Your task to perform on an android device: allow cookies in the chrome app Image 0: 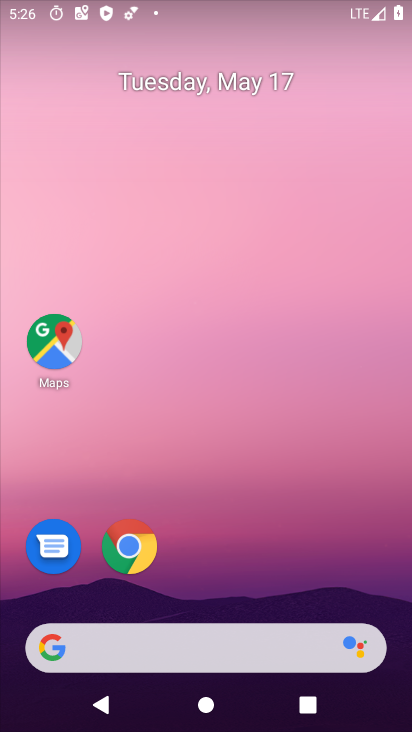
Step 0: drag from (257, 595) to (192, 147)
Your task to perform on an android device: allow cookies in the chrome app Image 1: 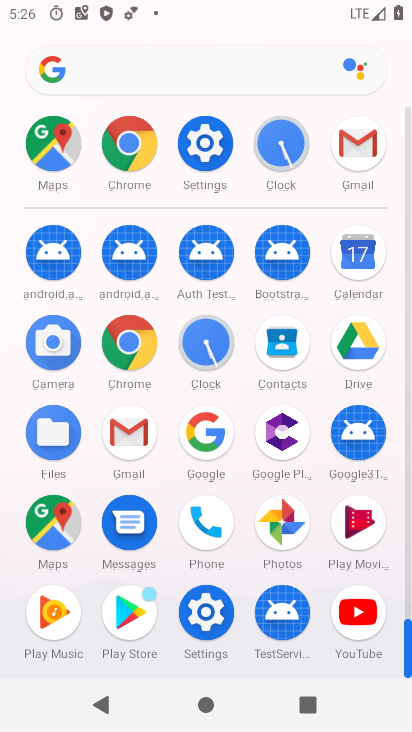
Step 1: click (125, 186)
Your task to perform on an android device: allow cookies in the chrome app Image 2: 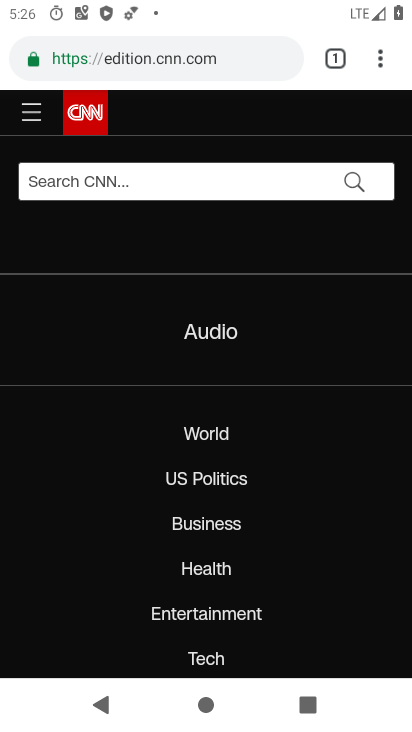
Step 2: click (381, 63)
Your task to perform on an android device: allow cookies in the chrome app Image 3: 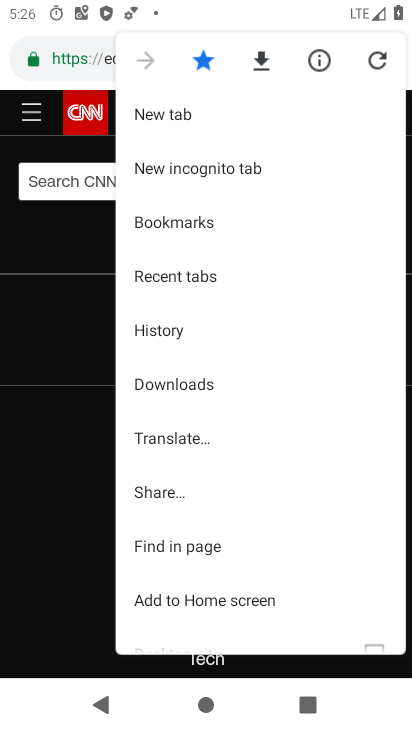
Step 3: drag from (192, 575) to (221, 250)
Your task to perform on an android device: allow cookies in the chrome app Image 4: 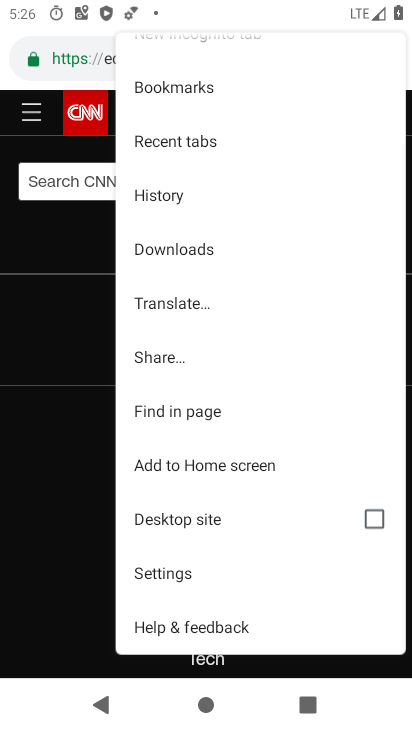
Step 4: click (159, 587)
Your task to perform on an android device: allow cookies in the chrome app Image 5: 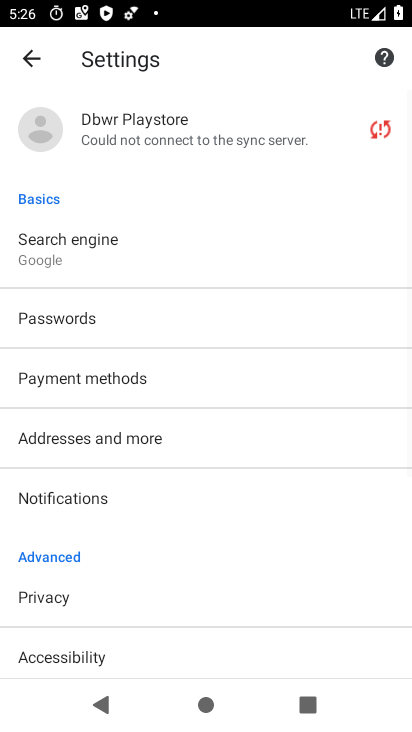
Step 5: drag from (123, 614) to (99, 249)
Your task to perform on an android device: allow cookies in the chrome app Image 6: 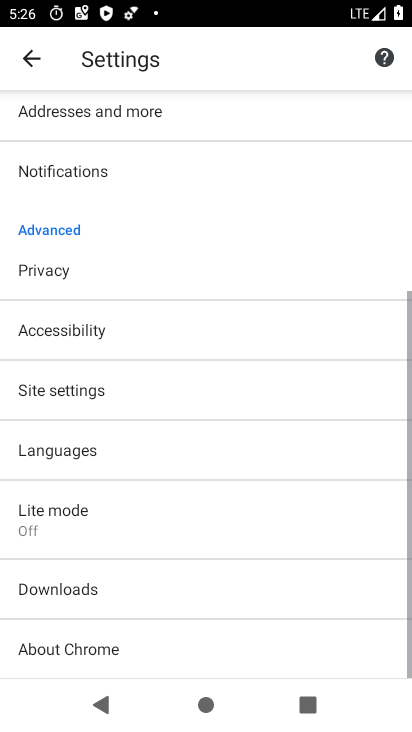
Step 6: drag from (79, 617) to (134, 325)
Your task to perform on an android device: allow cookies in the chrome app Image 7: 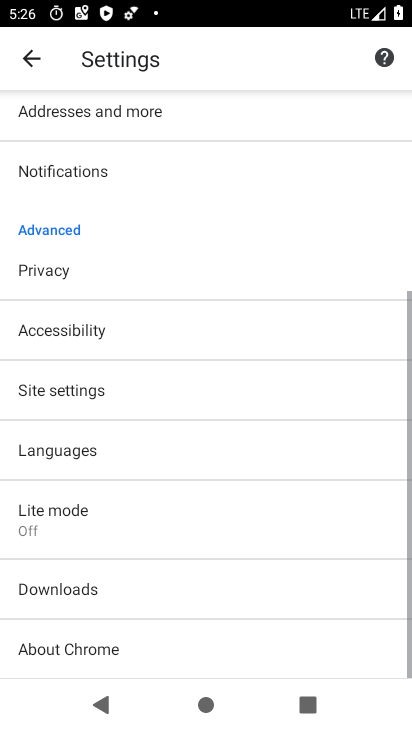
Step 7: click (80, 402)
Your task to perform on an android device: allow cookies in the chrome app Image 8: 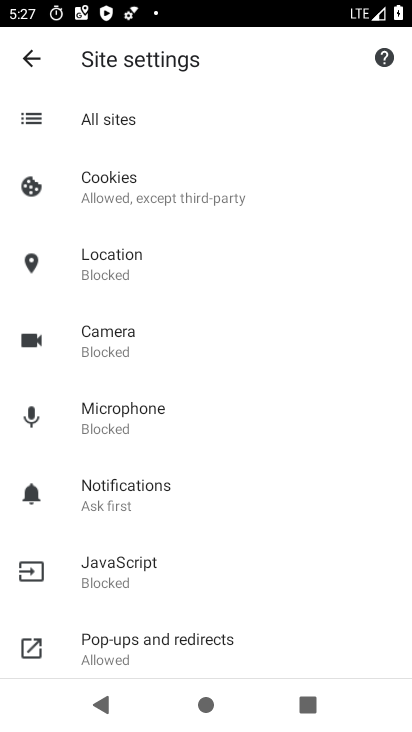
Step 8: click (113, 192)
Your task to perform on an android device: allow cookies in the chrome app Image 9: 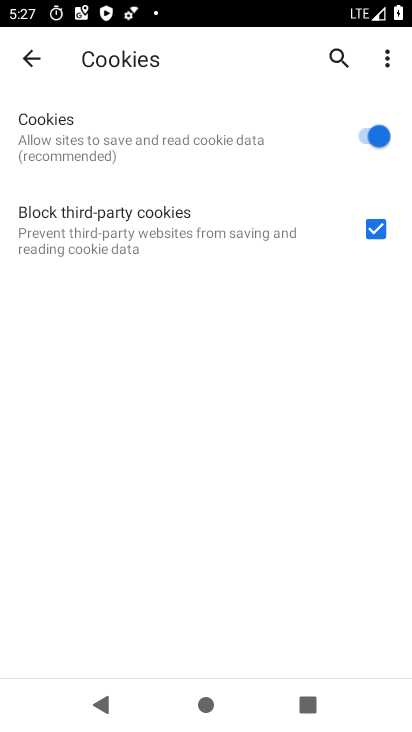
Step 9: task complete